Your task to perform on an android device: open app "Skype" (install if not already installed) and enter user name: "rumor@gmail.com" and password: "kinsman" Image 0: 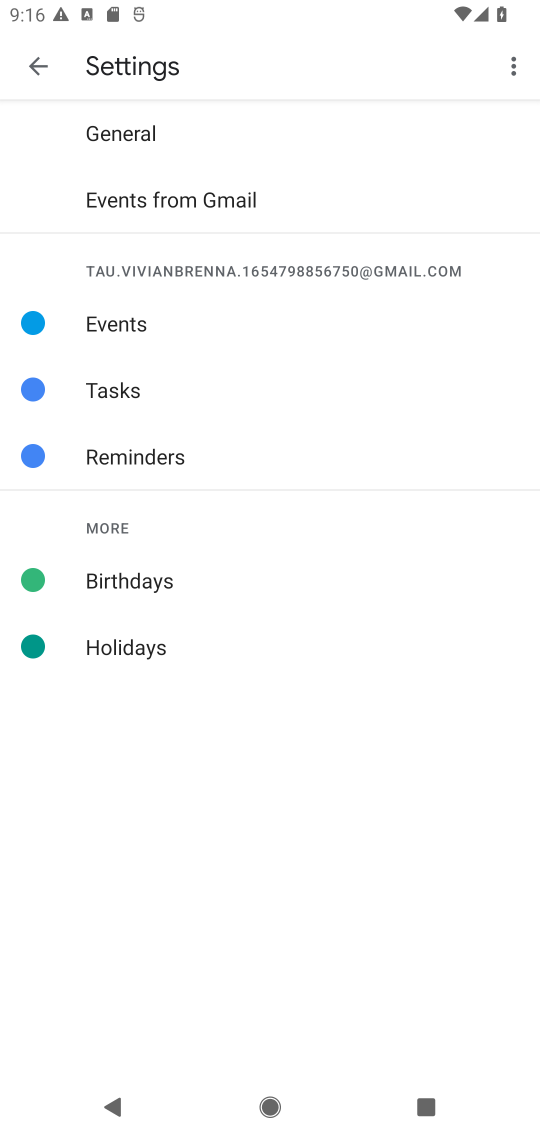
Step 0: press home button
Your task to perform on an android device: open app "Skype" (install if not already installed) and enter user name: "rumor@gmail.com" and password: "kinsman" Image 1: 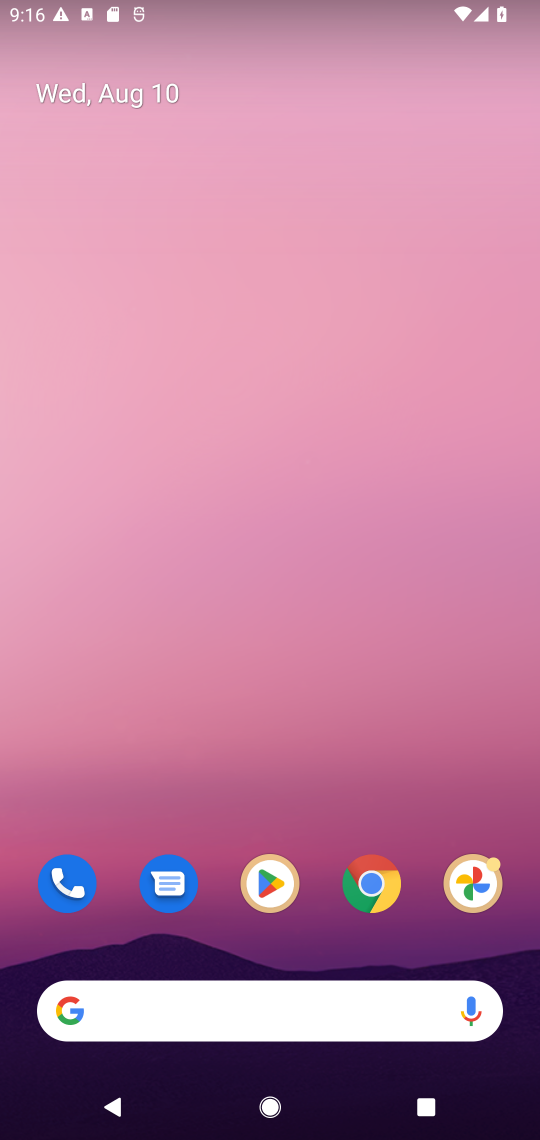
Step 1: click (270, 891)
Your task to perform on an android device: open app "Skype" (install if not already installed) and enter user name: "rumor@gmail.com" and password: "kinsman" Image 2: 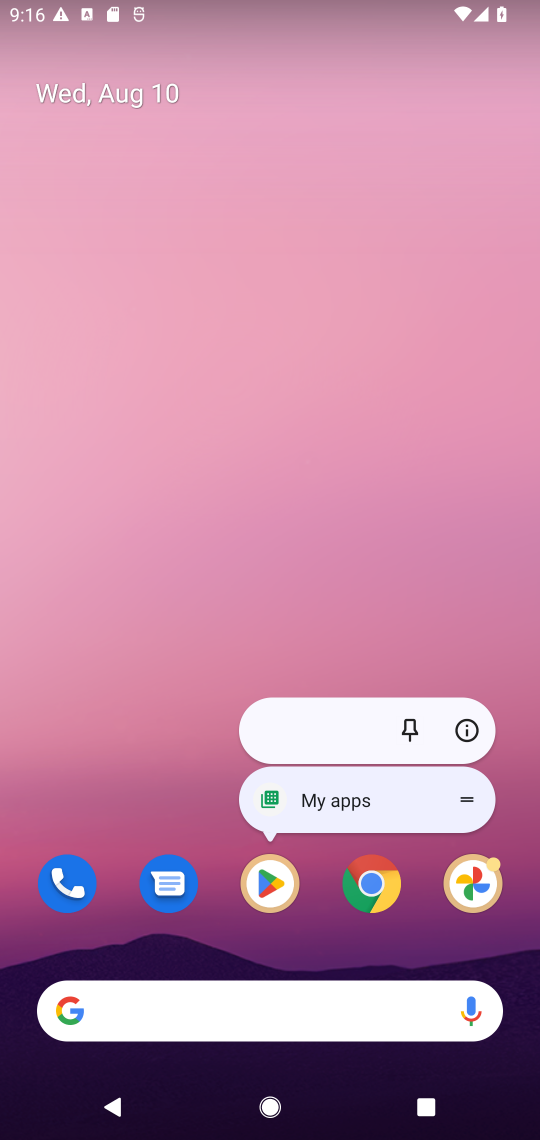
Step 2: click (269, 892)
Your task to perform on an android device: open app "Skype" (install if not already installed) and enter user name: "rumor@gmail.com" and password: "kinsman" Image 3: 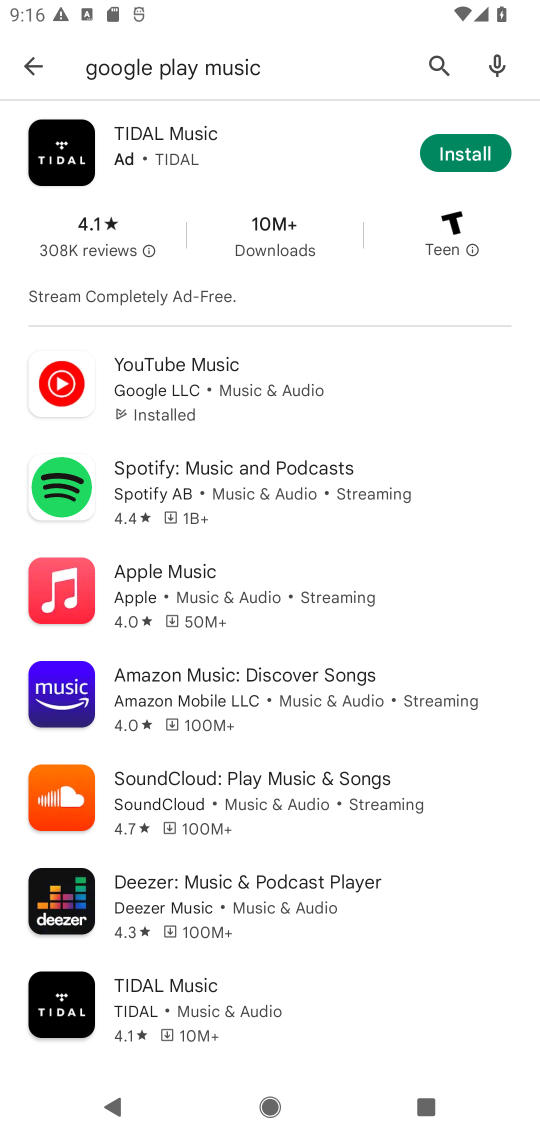
Step 3: click (435, 61)
Your task to perform on an android device: open app "Skype" (install if not already installed) and enter user name: "rumor@gmail.com" and password: "kinsman" Image 4: 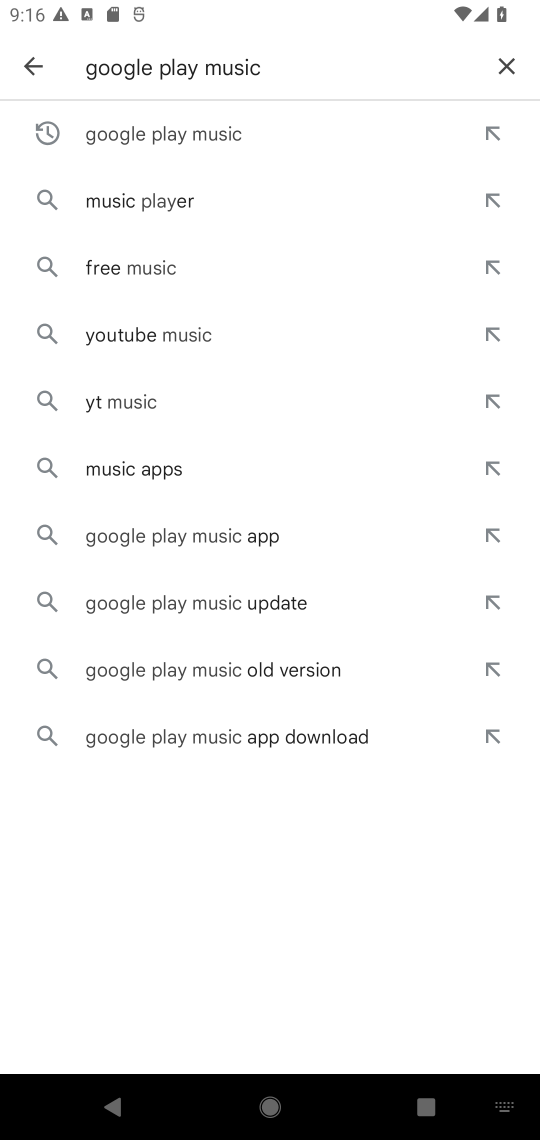
Step 4: click (510, 66)
Your task to perform on an android device: open app "Skype" (install if not already installed) and enter user name: "rumor@gmail.com" and password: "kinsman" Image 5: 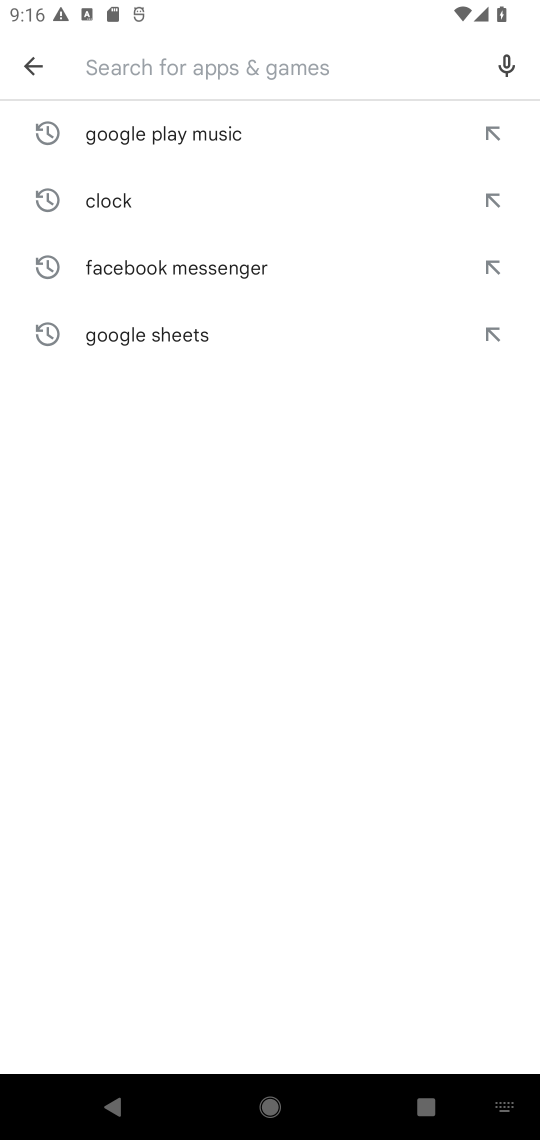
Step 5: type "Skype"
Your task to perform on an android device: open app "Skype" (install if not already installed) and enter user name: "rumor@gmail.com" and password: "kinsman" Image 6: 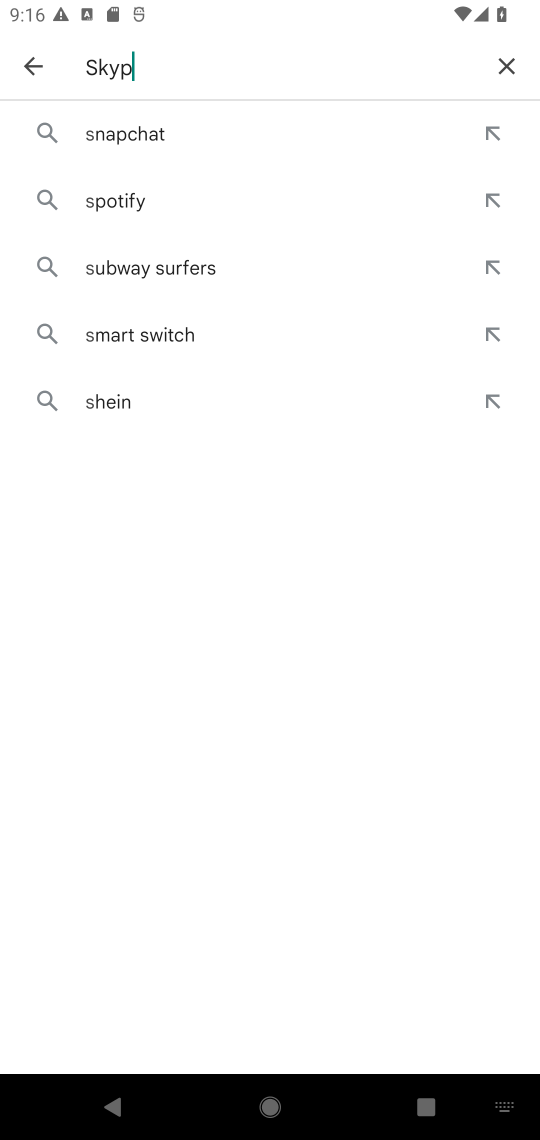
Step 6: type ""
Your task to perform on an android device: open app "Skype" (install if not already installed) and enter user name: "rumor@gmail.com" and password: "kinsman" Image 7: 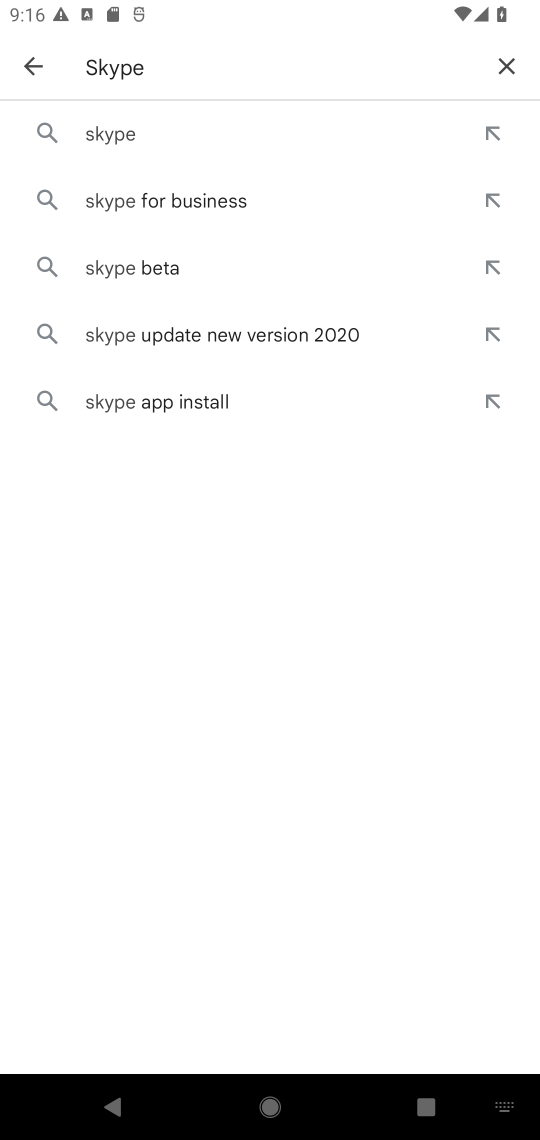
Step 7: click (112, 122)
Your task to perform on an android device: open app "Skype" (install if not already installed) and enter user name: "rumor@gmail.com" and password: "kinsman" Image 8: 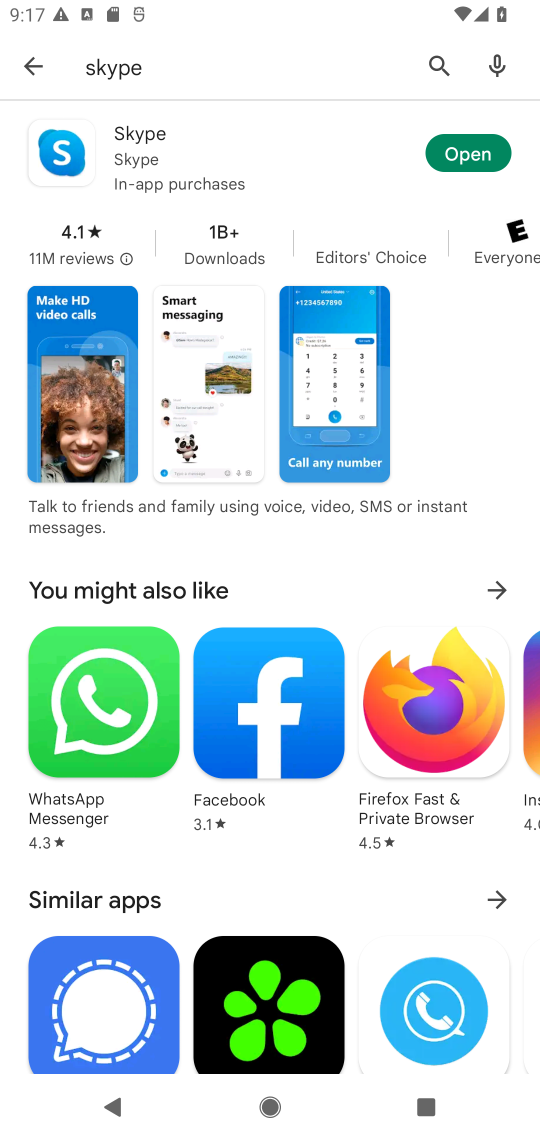
Step 8: click (475, 150)
Your task to perform on an android device: open app "Skype" (install if not already installed) and enter user name: "rumor@gmail.com" and password: "kinsman" Image 9: 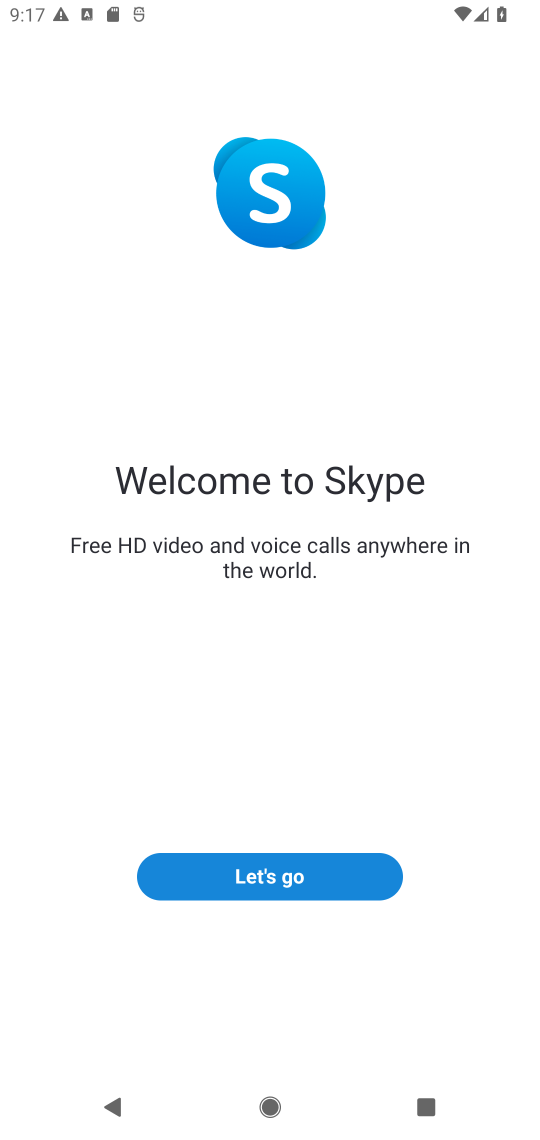
Step 9: click (287, 879)
Your task to perform on an android device: open app "Skype" (install if not already installed) and enter user name: "rumor@gmail.com" and password: "kinsman" Image 10: 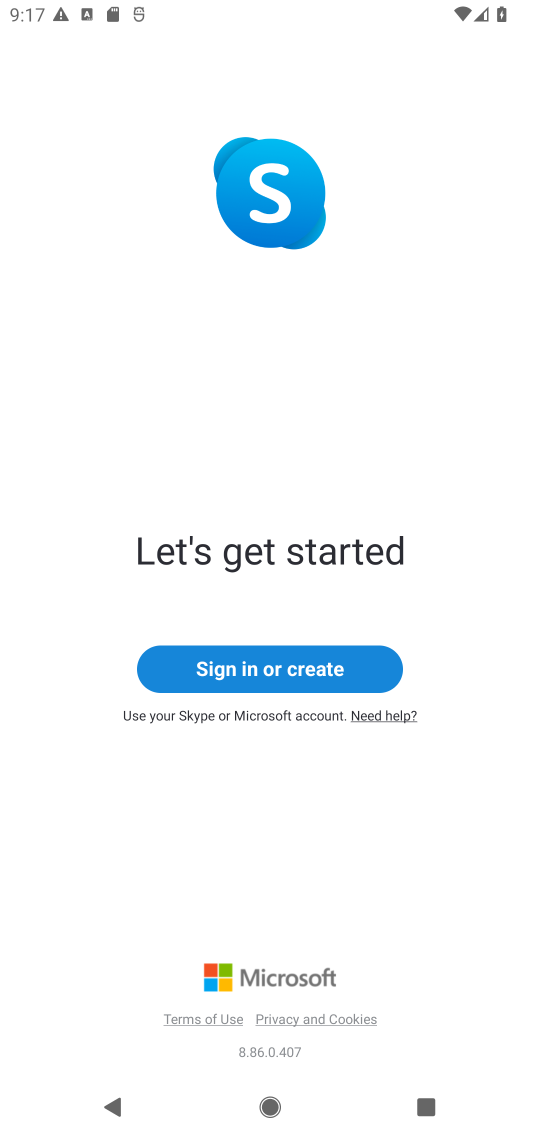
Step 10: click (262, 676)
Your task to perform on an android device: open app "Skype" (install if not already installed) and enter user name: "rumor@gmail.com" and password: "kinsman" Image 11: 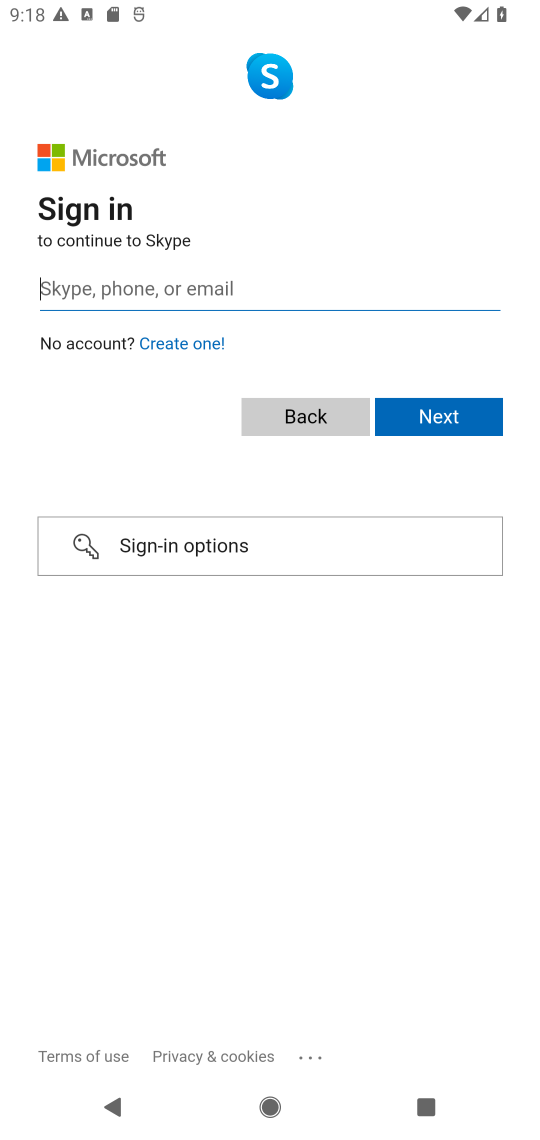
Step 11: task complete